Your task to perform on an android device: open sync settings in chrome Image 0: 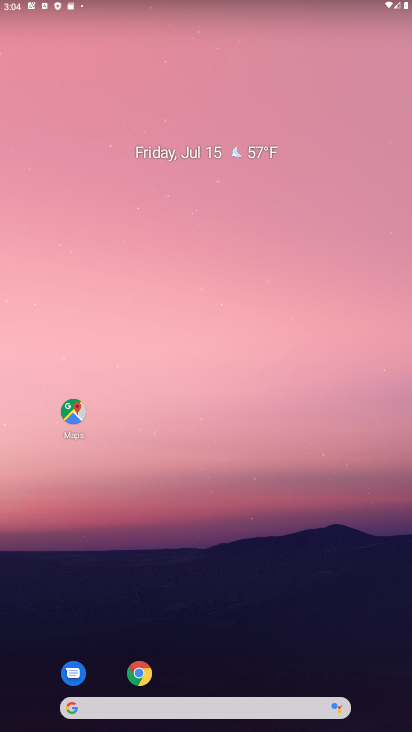
Step 0: click (137, 672)
Your task to perform on an android device: open sync settings in chrome Image 1: 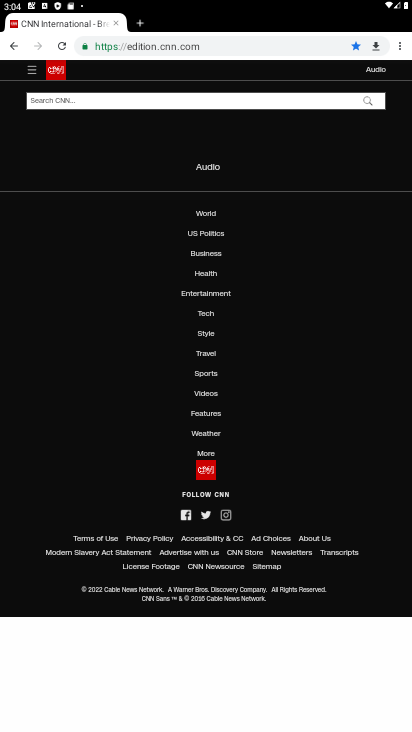
Step 1: click (400, 47)
Your task to perform on an android device: open sync settings in chrome Image 2: 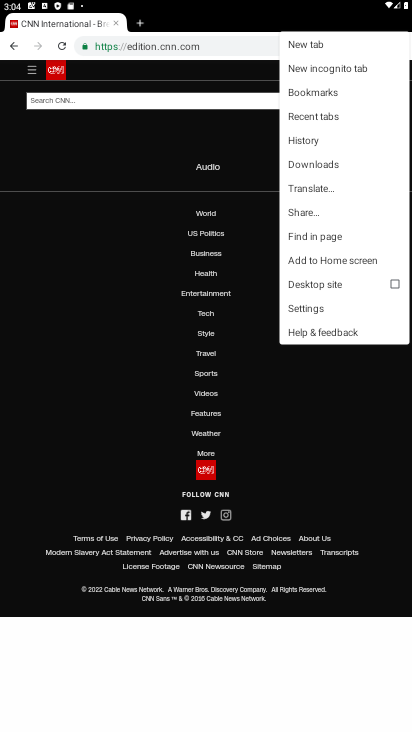
Step 2: click (304, 309)
Your task to perform on an android device: open sync settings in chrome Image 3: 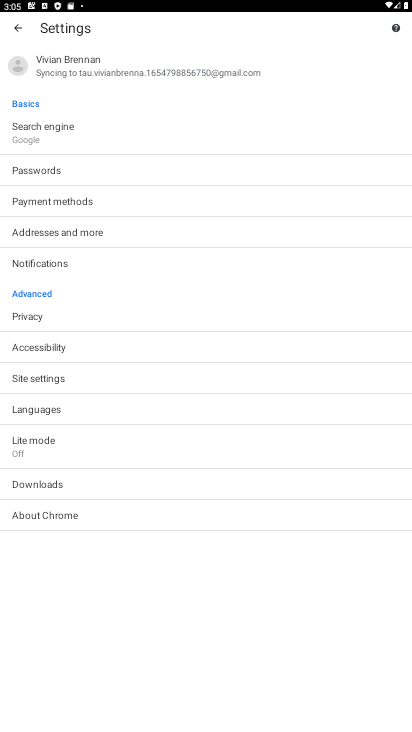
Step 3: click (95, 70)
Your task to perform on an android device: open sync settings in chrome Image 4: 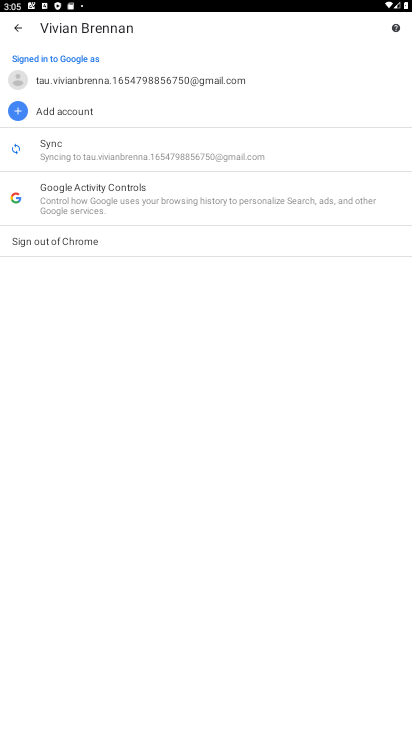
Step 4: click (48, 146)
Your task to perform on an android device: open sync settings in chrome Image 5: 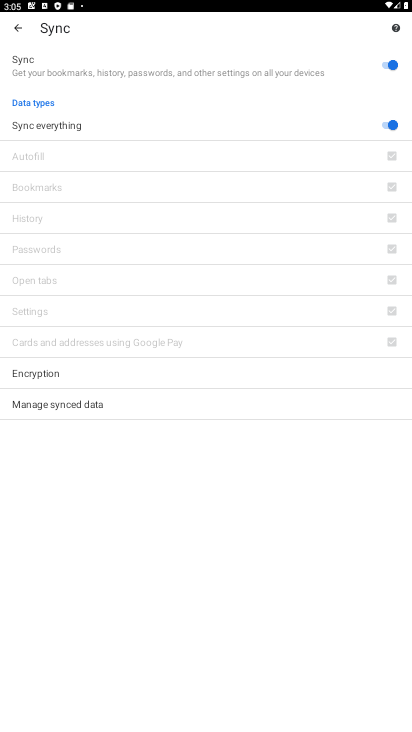
Step 5: task complete